Your task to perform on an android device: See recent photos Image 0: 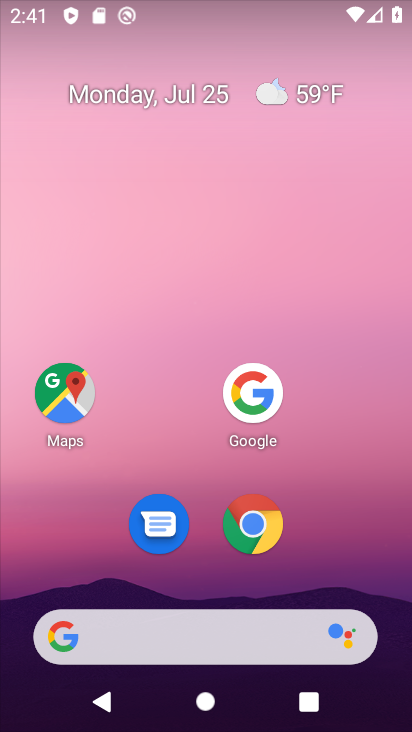
Step 0: drag from (181, 628) to (301, 5)
Your task to perform on an android device: See recent photos Image 1: 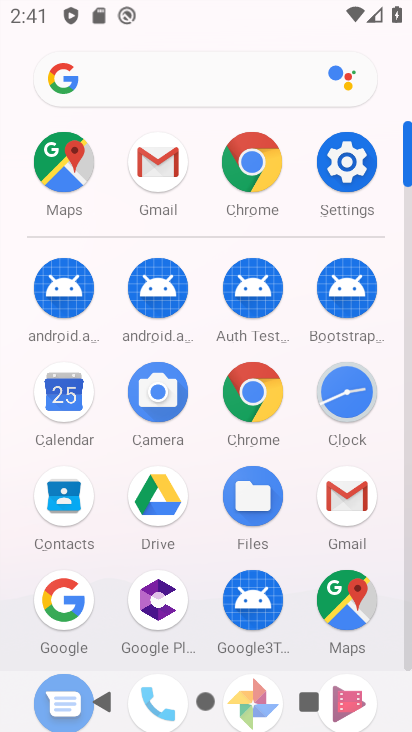
Step 1: drag from (190, 615) to (338, 218)
Your task to perform on an android device: See recent photos Image 2: 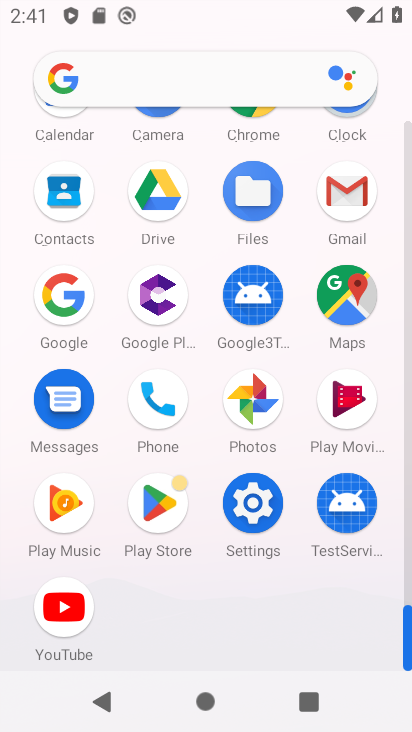
Step 2: click (261, 394)
Your task to perform on an android device: See recent photos Image 3: 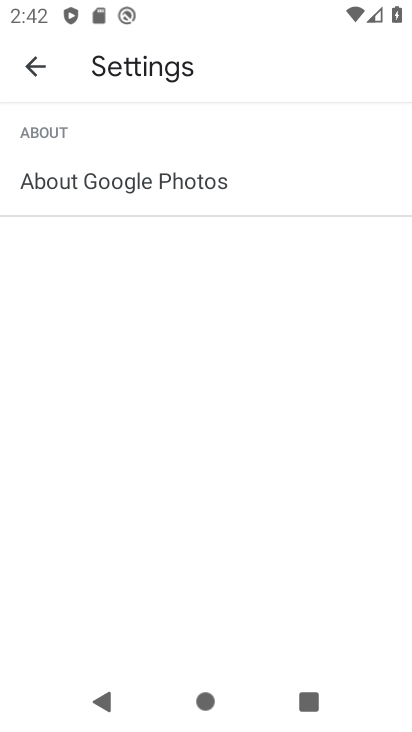
Step 3: click (27, 63)
Your task to perform on an android device: See recent photos Image 4: 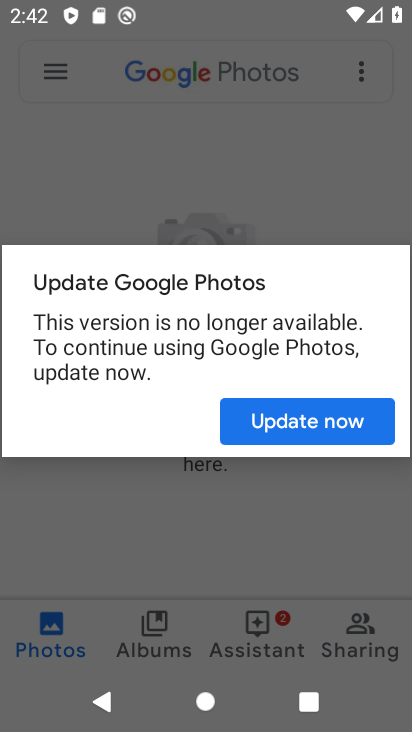
Step 4: click (285, 425)
Your task to perform on an android device: See recent photos Image 5: 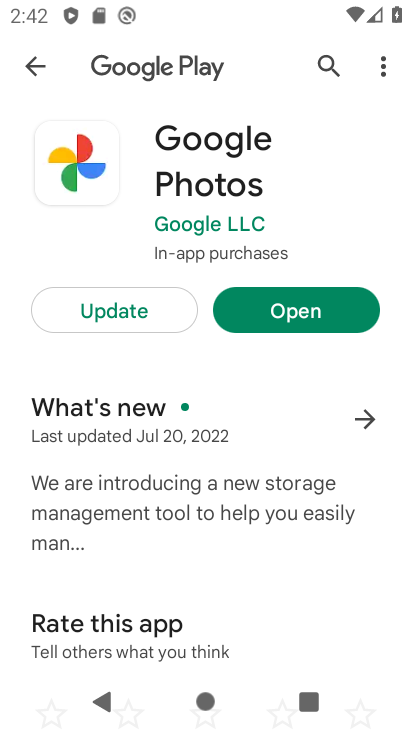
Step 5: click (315, 308)
Your task to perform on an android device: See recent photos Image 6: 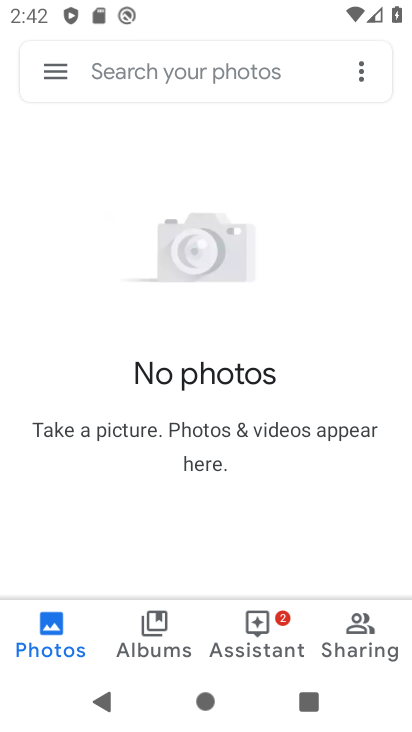
Step 6: task complete